Your task to perform on an android device: Open Google Maps Image 0: 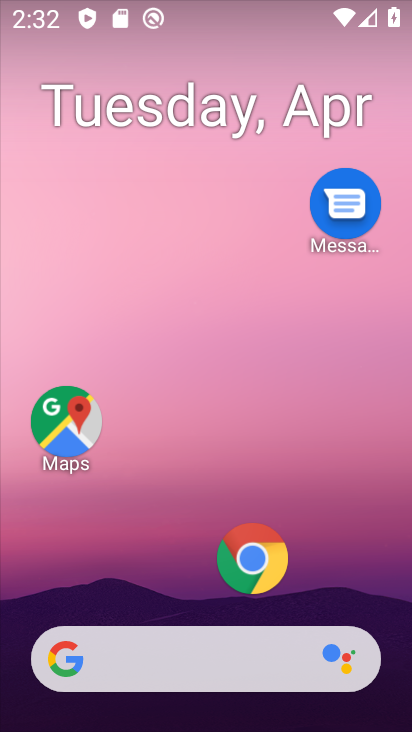
Step 0: drag from (198, 600) to (151, 14)
Your task to perform on an android device: Open Google Maps Image 1: 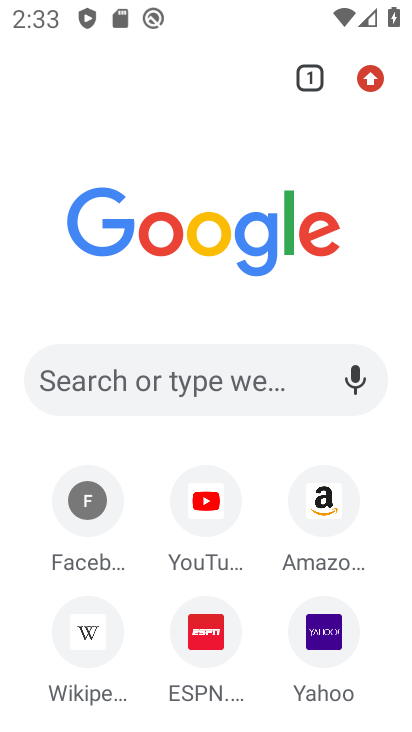
Step 1: press home button
Your task to perform on an android device: Open Google Maps Image 2: 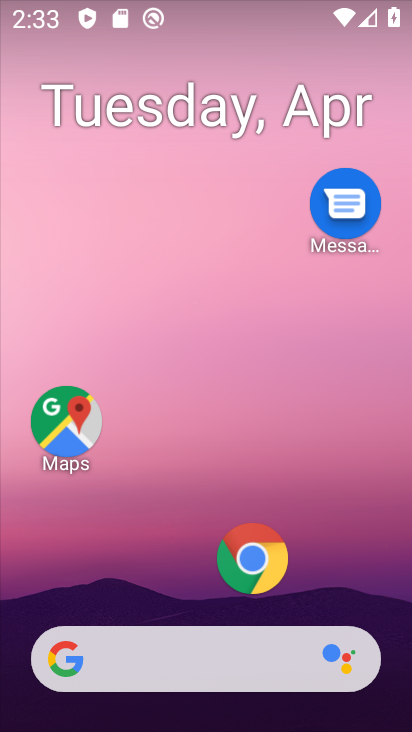
Step 2: click (81, 431)
Your task to perform on an android device: Open Google Maps Image 3: 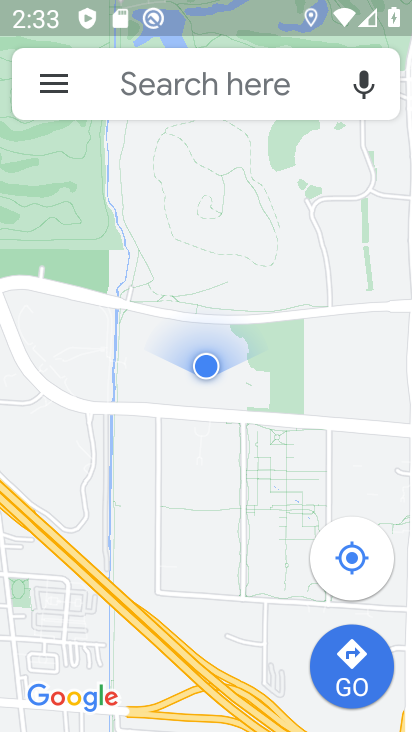
Step 3: task complete